Your task to perform on an android device: Go to privacy settings Image 0: 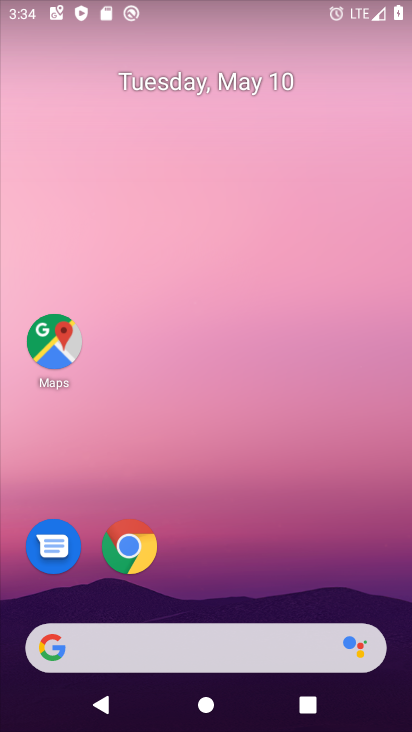
Step 0: drag from (220, 579) to (299, 0)
Your task to perform on an android device: Go to privacy settings Image 1: 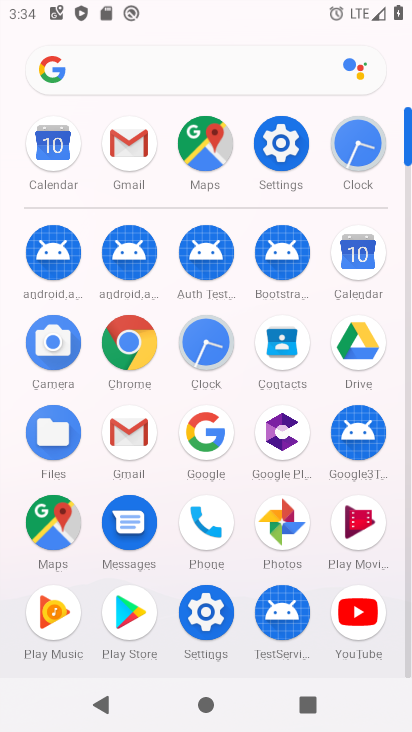
Step 1: click (296, 169)
Your task to perform on an android device: Go to privacy settings Image 2: 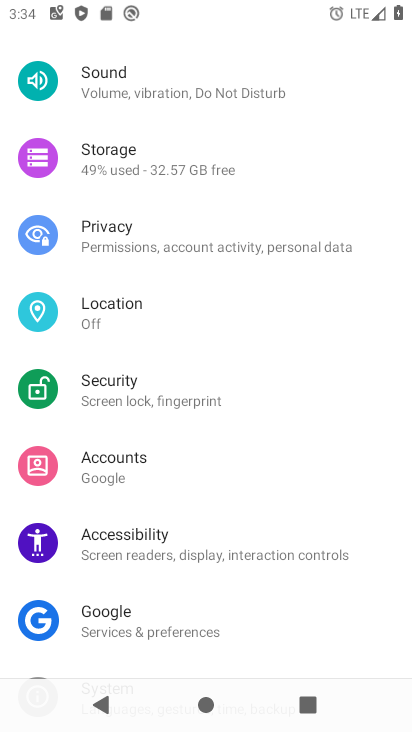
Step 2: click (183, 261)
Your task to perform on an android device: Go to privacy settings Image 3: 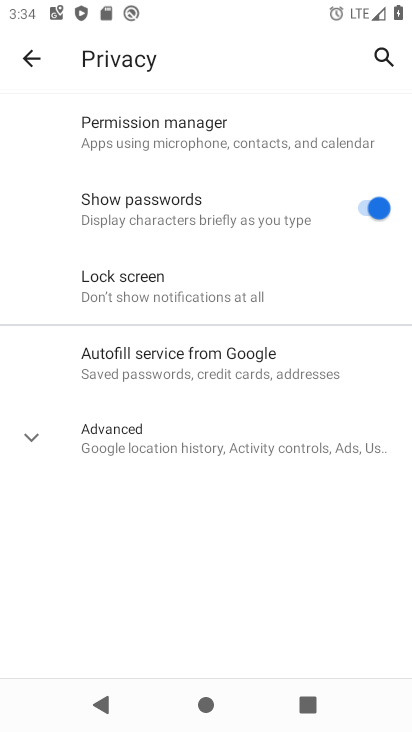
Step 3: task complete